Your task to perform on an android device: turn on location history Image 0: 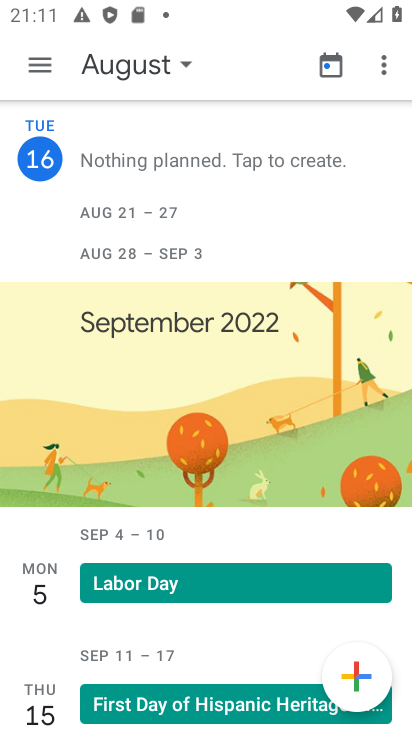
Step 0: press home button
Your task to perform on an android device: turn on location history Image 1: 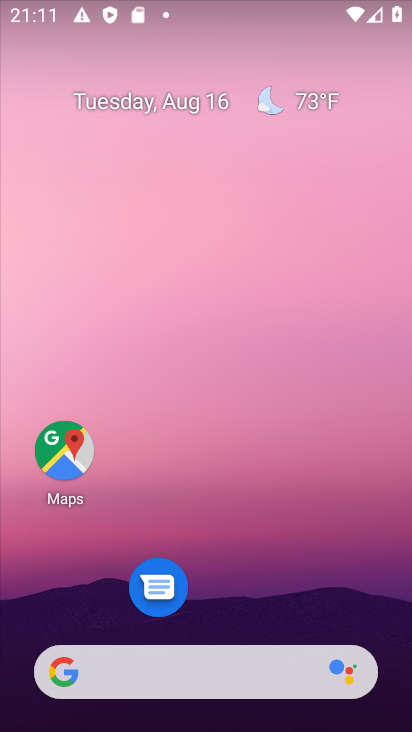
Step 1: drag from (241, 625) to (268, 2)
Your task to perform on an android device: turn on location history Image 2: 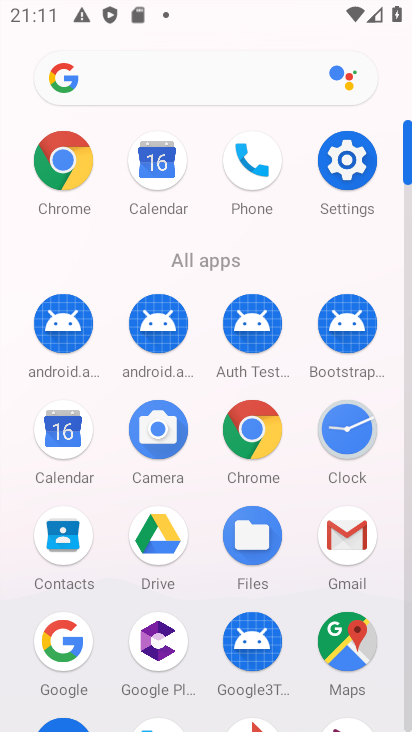
Step 2: click (365, 156)
Your task to perform on an android device: turn on location history Image 3: 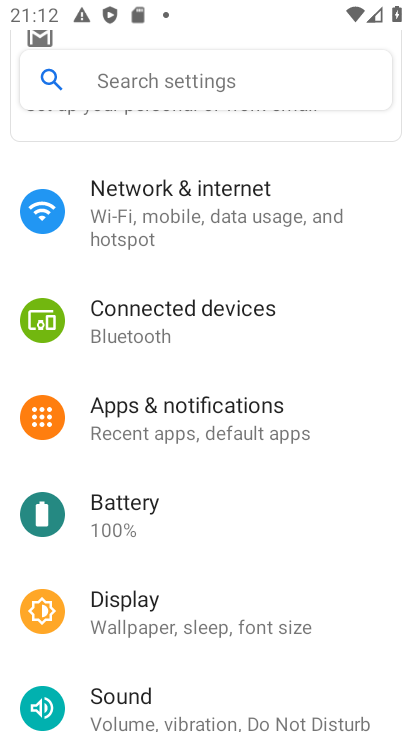
Step 3: drag from (283, 562) to (204, 36)
Your task to perform on an android device: turn on location history Image 4: 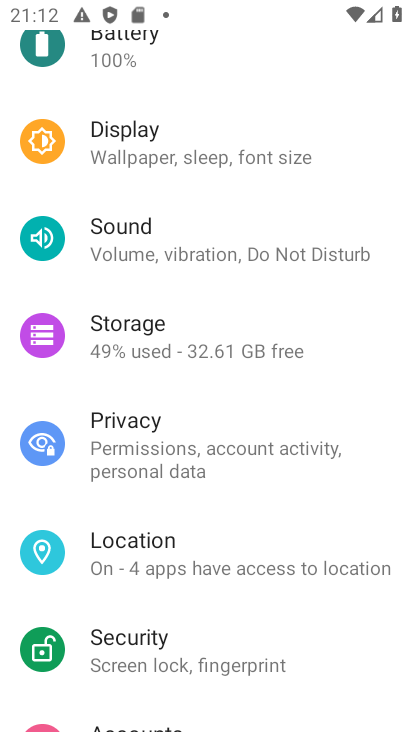
Step 4: click (143, 566)
Your task to perform on an android device: turn on location history Image 5: 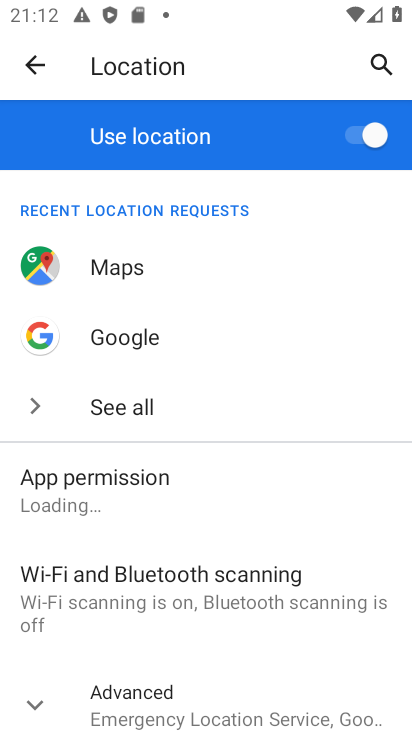
Step 5: click (171, 709)
Your task to perform on an android device: turn on location history Image 6: 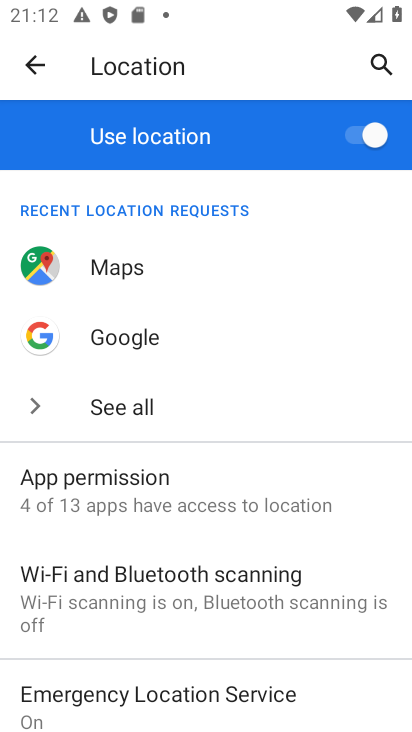
Step 6: drag from (171, 709) to (125, 190)
Your task to perform on an android device: turn on location history Image 7: 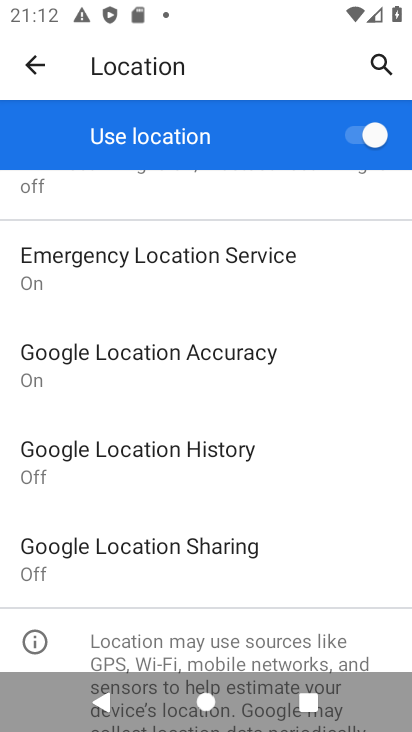
Step 7: click (96, 489)
Your task to perform on an android device: turn on location history Image 8: 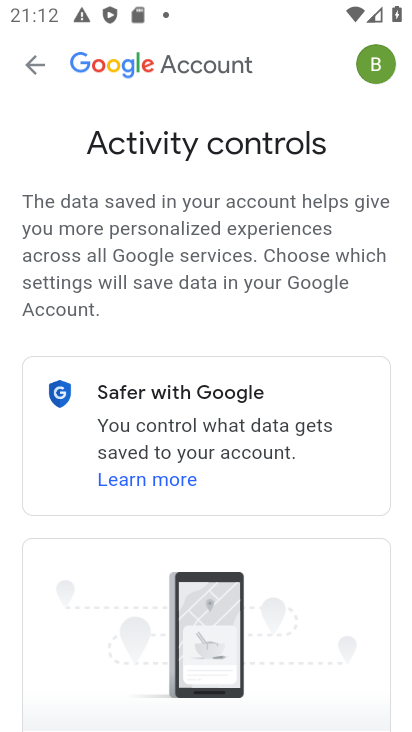
Step 8: task complete